Your task to perform on an android device: What's the news in Ecuador? Image 0: 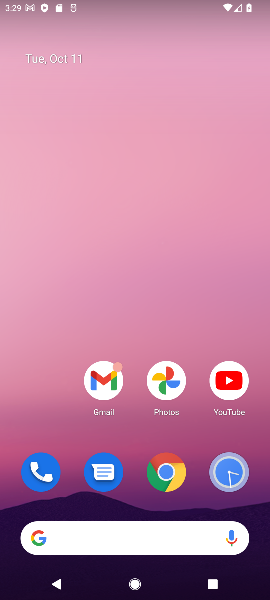
Step 0: click (123, 538)
Your task to perform on an android device: What's the news in Ecuador? Image 1: 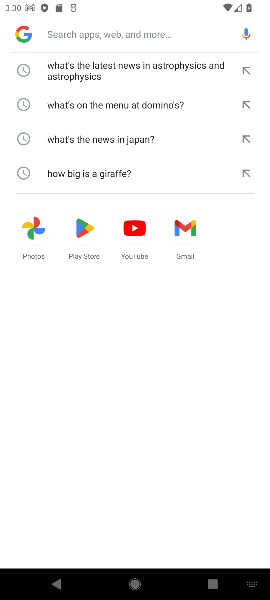
Step 1: type "What's the news in Ecuador?"
Your task to perform on an android device: What's the news in Ecuador? Image 2: 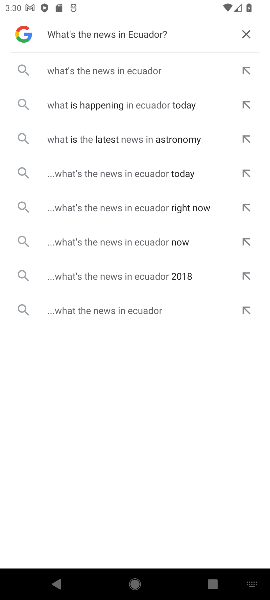
Step 2: click (109, 69)
Your task to perform on an android device: What's the news in Ecuador? Image 3: 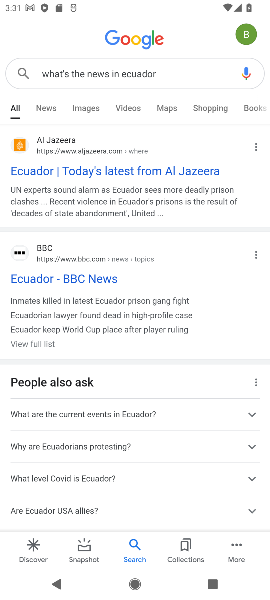
Step 3: task complete